Your task to perform on an android device: turn pop-ups off in chrome Image 0: 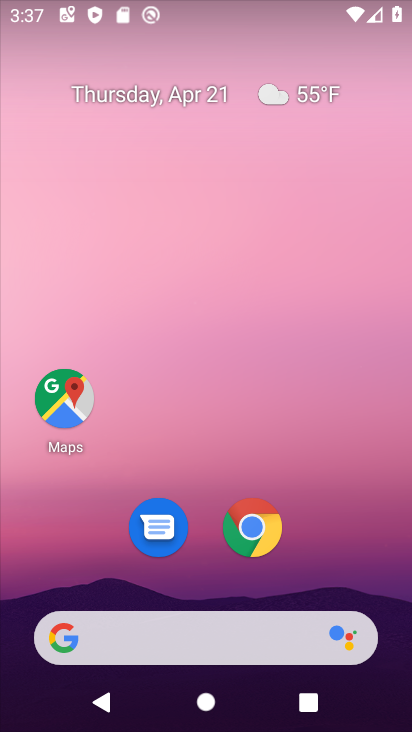
Step 0: click (266, 520)
Your task to perform on an android device: turn pop-ups off in chrome Image 1: 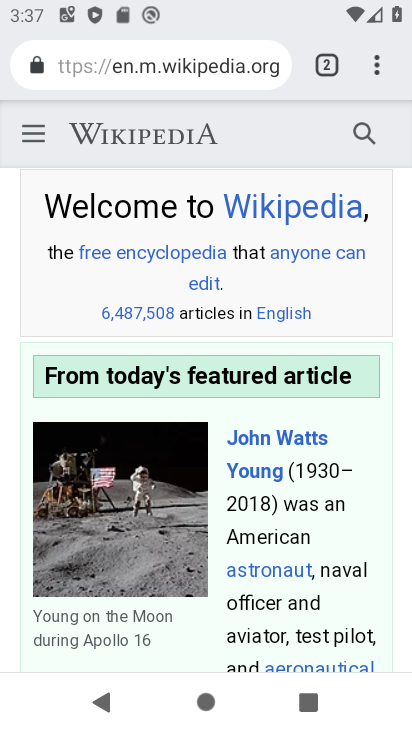
Step 1: click (375, 80)
Your task to perform on an android device: turn pop-ups off in chrome Image 2: 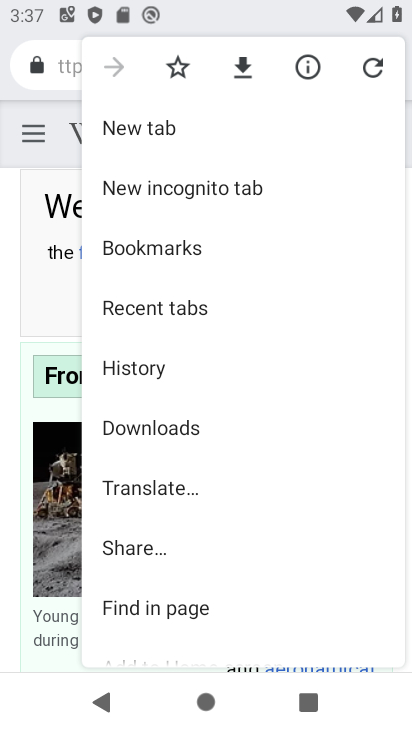
Step 2: drag from (251, 560) to (261, 297)
Your task to perform on an android device: turn pop-ups off in chrome Image 3: 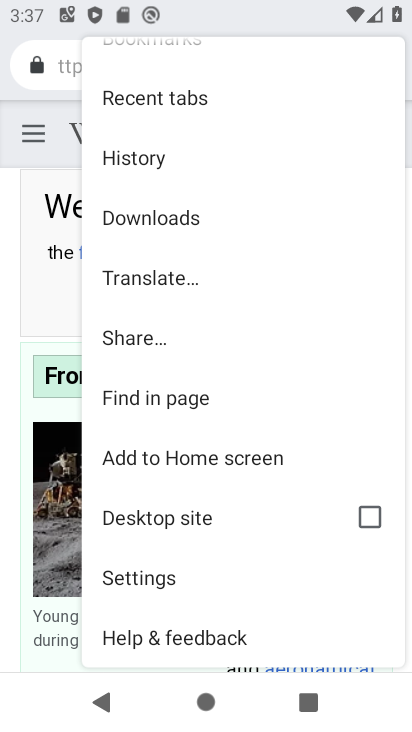
Step 3: click (212, 573)
Your task to perform on an android device: turn pop-ups off in chrome Image 4: 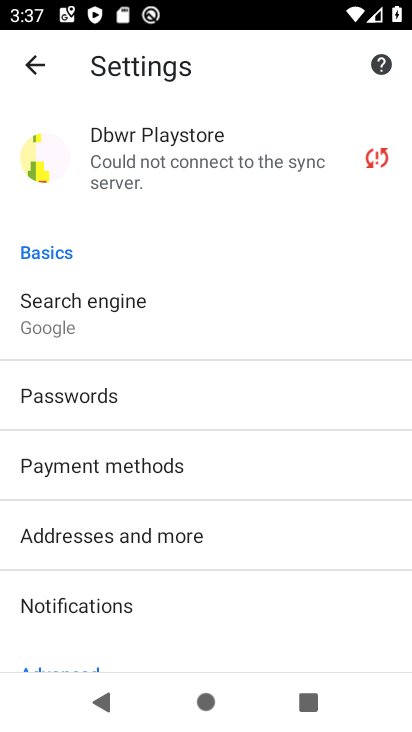
Step 4: drag from (212, 573) to (222, 90)
Your task to perform on an android device: turn pop-ups off in chrome Image 5: 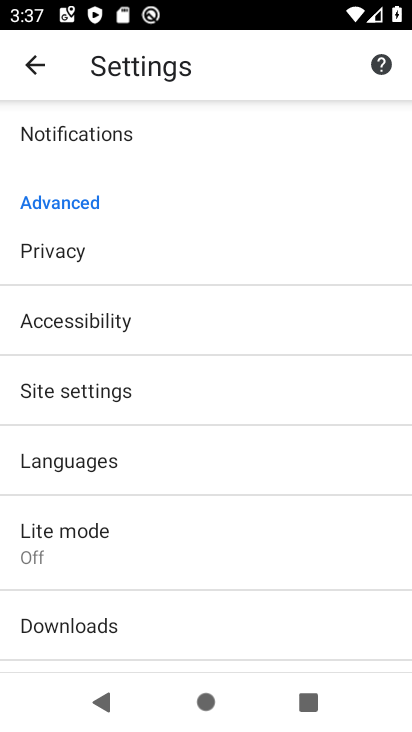
Step 5: click (196, 391)
Your task to perform on an android device: turn pop-ups off in chrome Image 6: 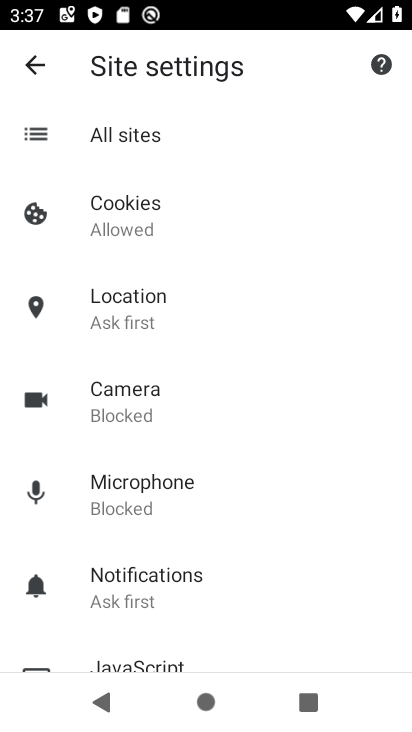
Step 6: drag from (241, 554) to (229, 314)
Your task to perform on an android device: turn pop-ups off in chrome Image 7: 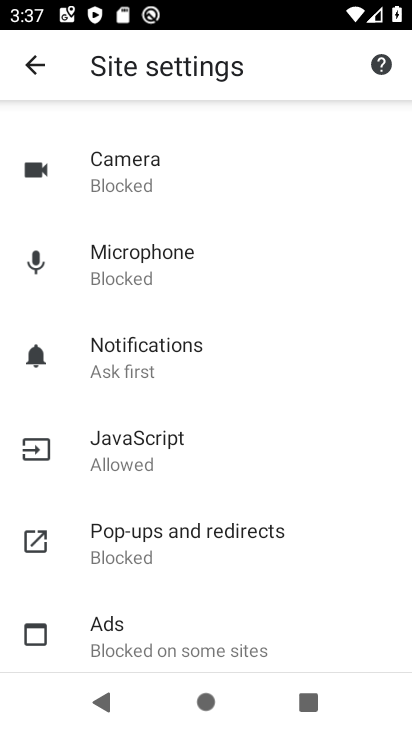
Step 7: click (278, 552)
Your task to perform on an android device: turn pop-ups off in chrome Image 8: 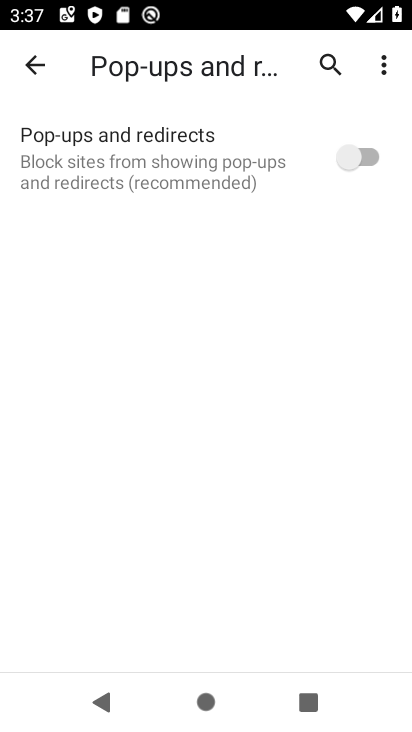
Step 8: task complete